Your task to perform on an android device: refresh tabs in the chrome app Image 0: 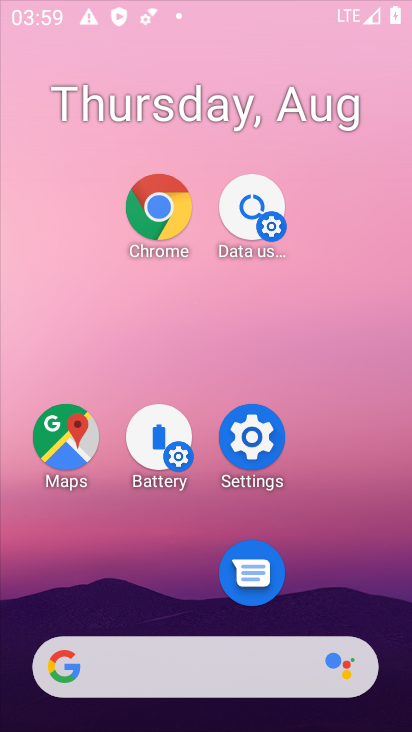
Step 0: drag from (242, 277) to (246, 218)
Your task to perform on an android device: refresh tabs in the chrome app Image 1: 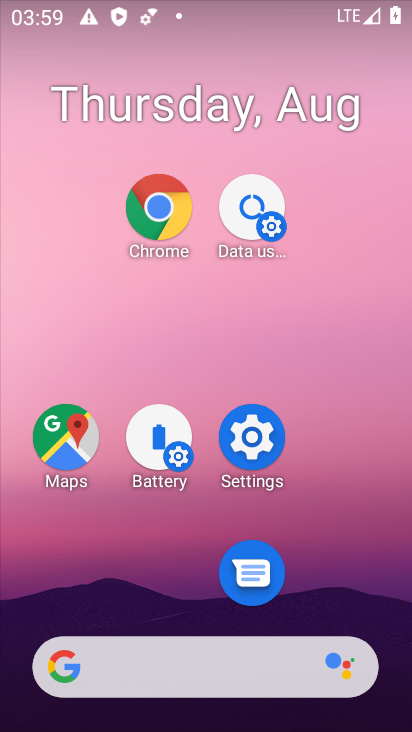
Step 1: drag from (188, 582) to (181, 235)
Your task to perform on an android device: refresh tabs in the chrome app Image 2: 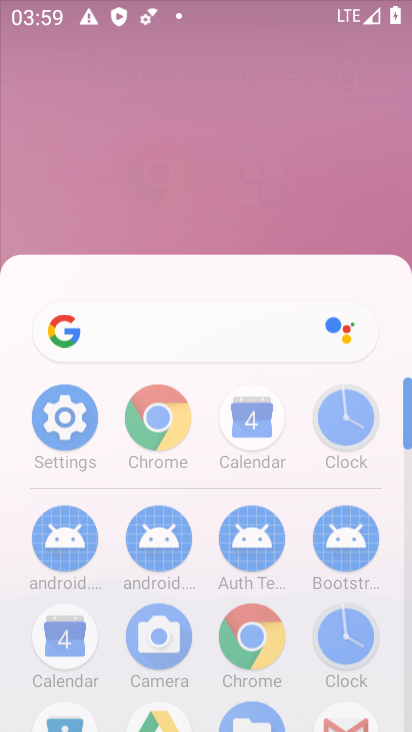
Step 2: drag from (180, 510) to (196, 257)
Your task to perform on an android device: refresh tabs in the chrome app Image 3: 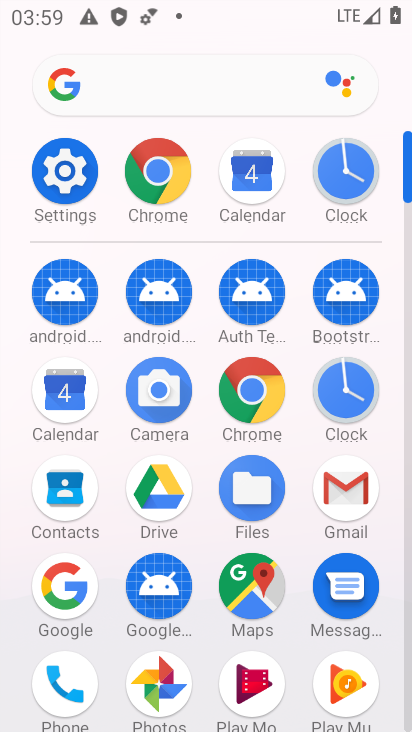
Step 3: drag from (198, 531) to (205, 255)
Your task to perform on an android device: refresh tabs in the chrome app Image 4: 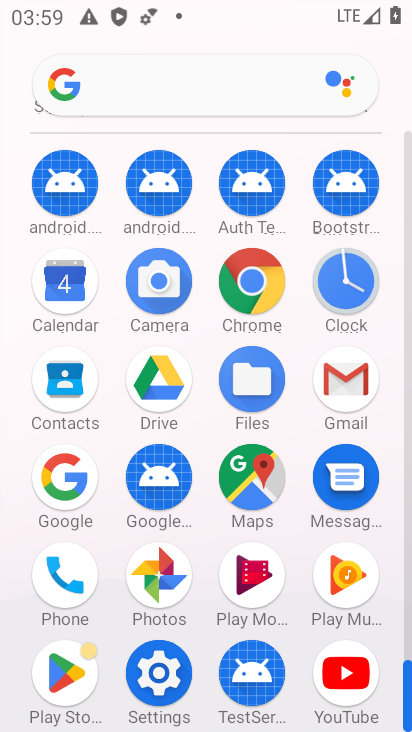
Step 4: click (254, 267)
Your task to perform on an android device: refresh tabs in the chrome app Image 5: 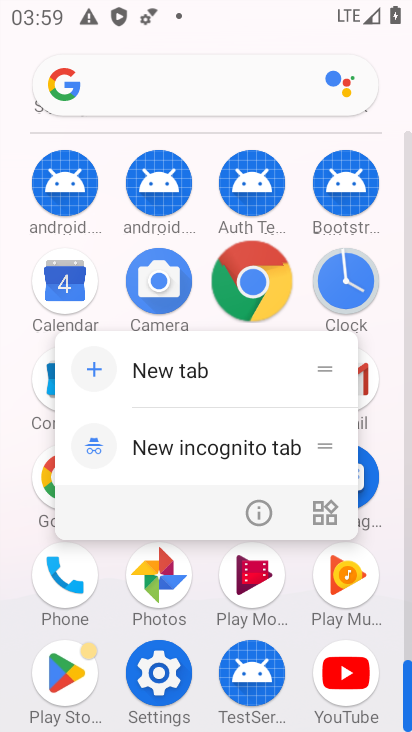
Step 5: click (247, 276)
Your task to perform on an android device: refresh tabs in the chrome app Image 6: 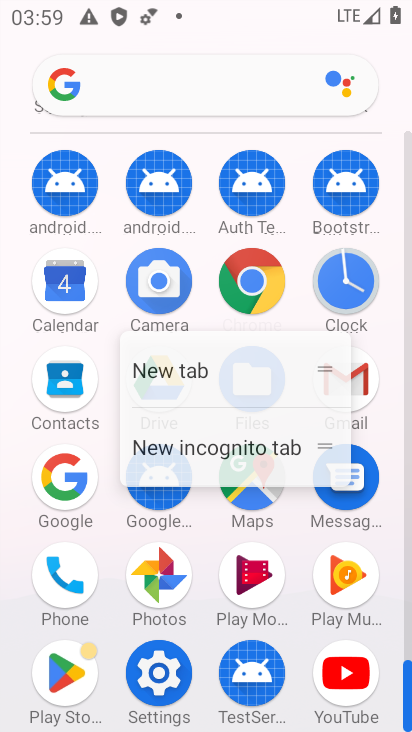
Step 6: click (253, 273)
Your task to perform on an android device: refresh tabs in the chrome app Image 7: 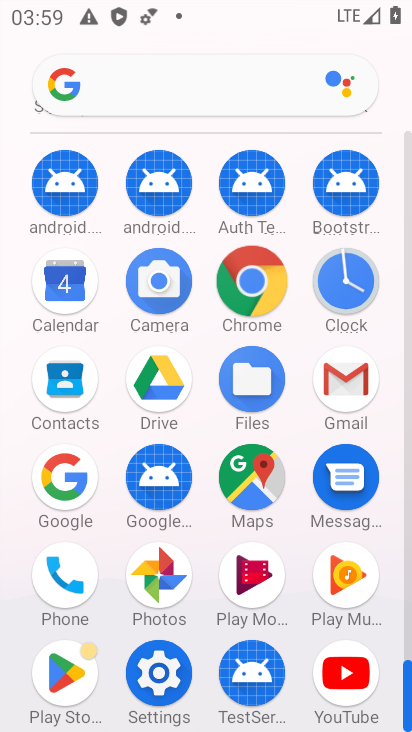
Step 7: click (253, 273)
Your task to perform on an android device: refresh tabs in the chrome app Image 8: 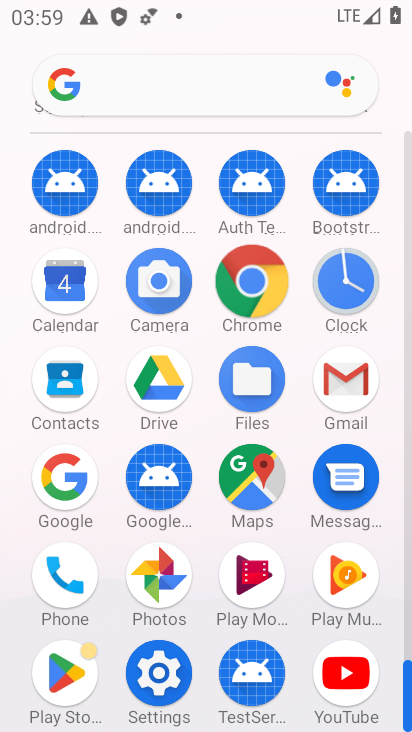
Step 8: click (253, 273)
Your task to perform on an android device: refresh tabs in the chrome app Image 9: 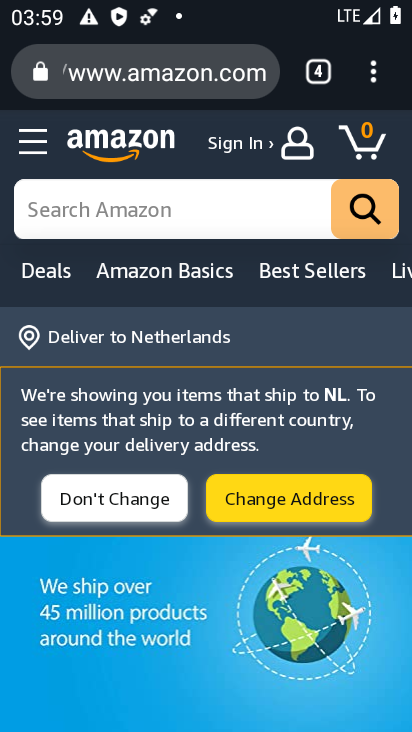
Step 9: click (378, 60)
Your task to perform on an android device: refresh tabs in the chrome app Image 10: 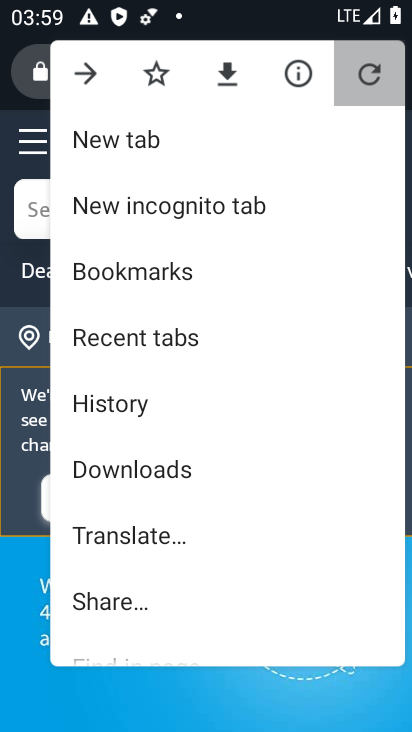
Step 10: click (367, 77)
Your task to perform on an android device: refresh tabs in the chrome app Image 11: 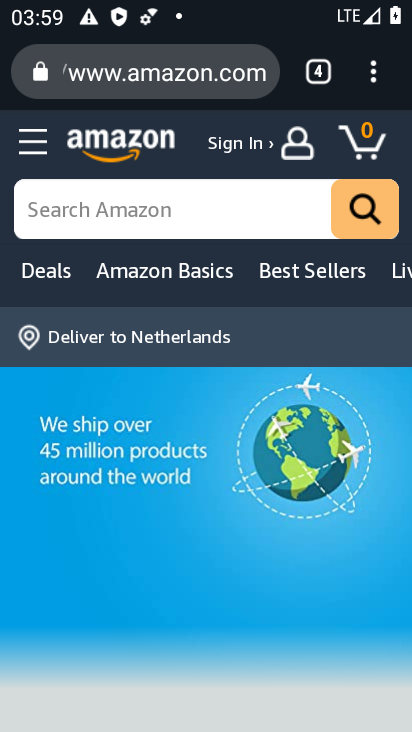
Step 11: task complete